Your task to perform on an android device: Check the weather Image 0: 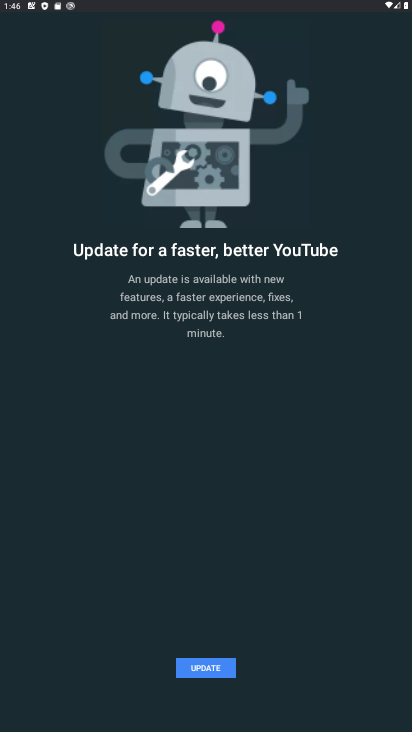
Step 0: press home button
Your task to perform on an android device: Check the weather Image 1: 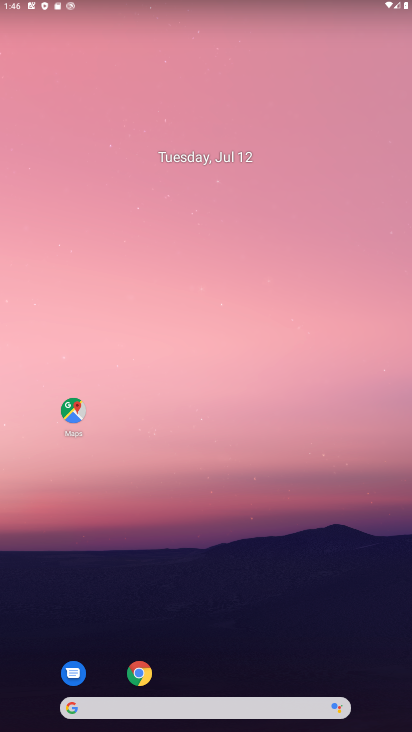
Step 1: drag from (102, 4) to (81, 402)
Your task to perform on an android device: Check the weather Image 2: 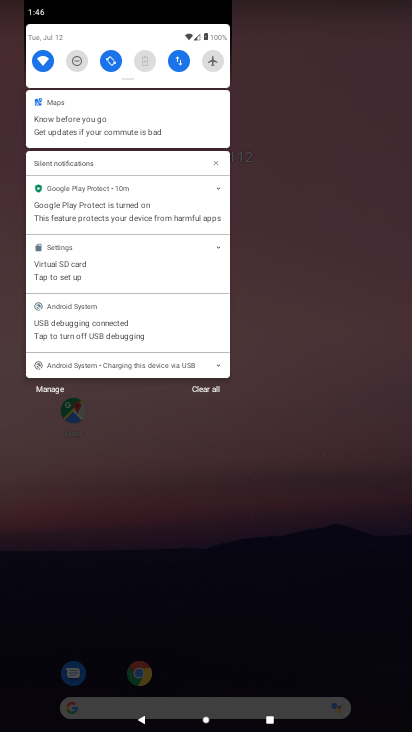
Step 2: click (194, 391)
Your task to perform on an android device: Check the weather Image 3: 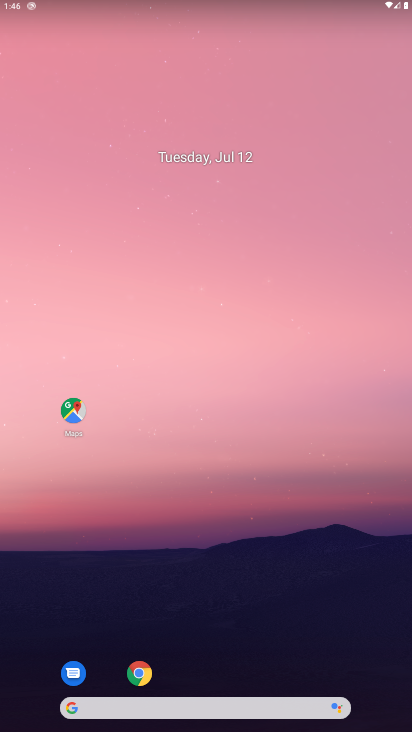
Step 3: drag from (213, 698) to (194, 236)
Your task to perform on an android device: Check the weather Image 4: 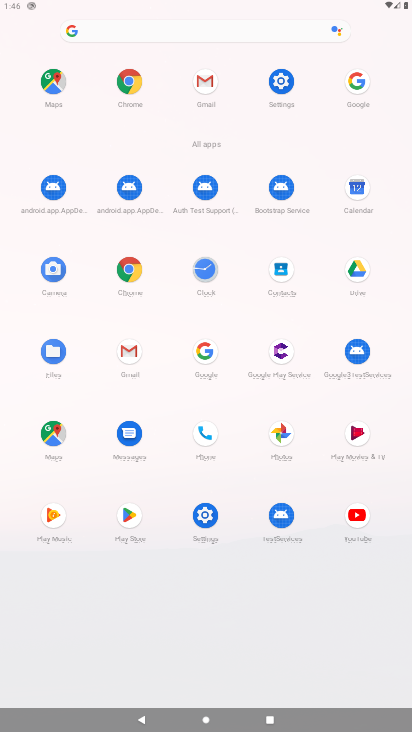
Step 4: click (211, 350)
Your task to perform on an android device: Check the weather Image 5: 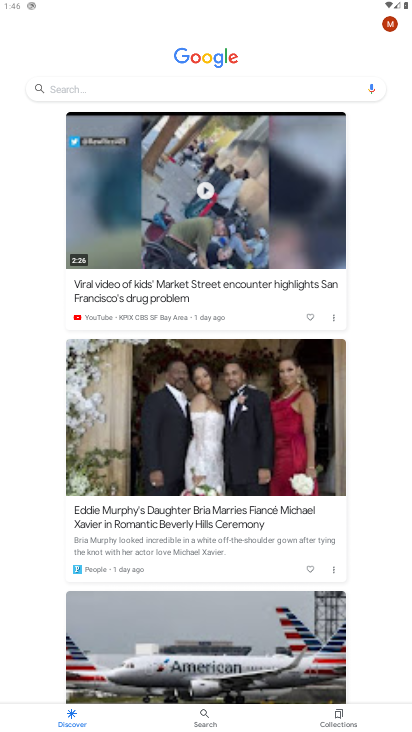
Step 5: click (98, 82)
Your task to perform on an android device: Check the weather Image 6: 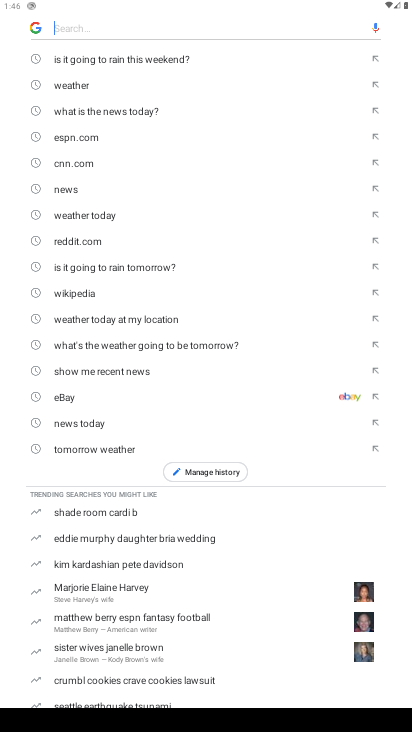
Step 6: click (61, 78)
Your task to perform on an android device: Check the weather Image 7: 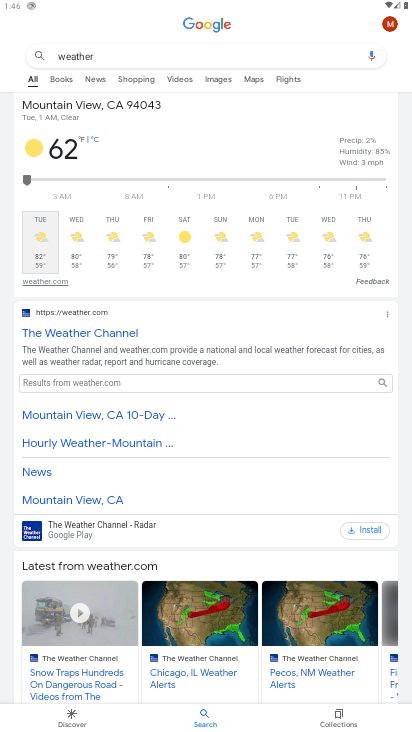
Step 7: task complete